Your task to perform on an android device: turn off wifi Image 0: 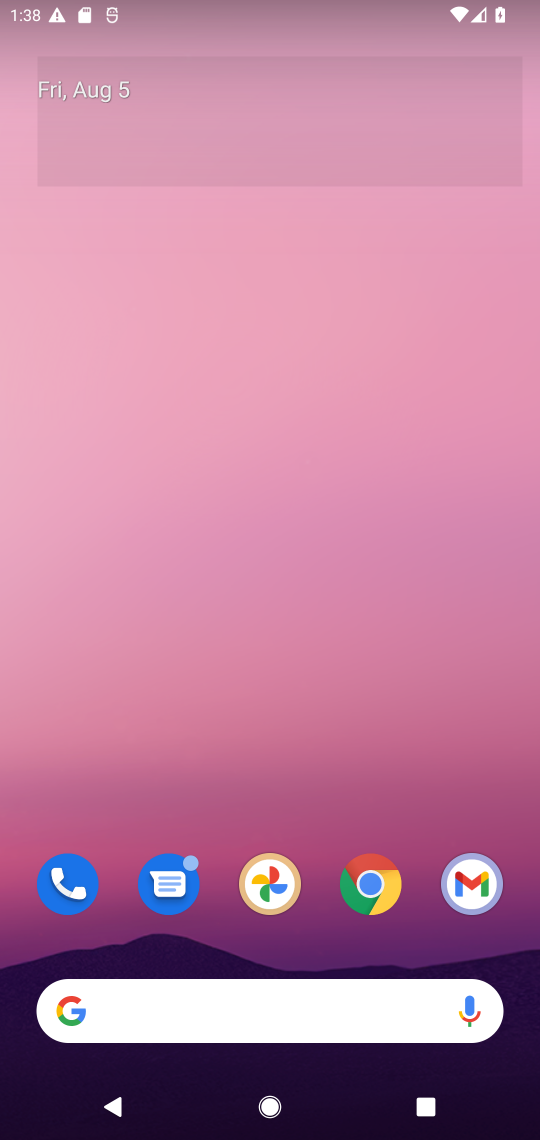
Step 0: drag from (510, 921) to (369, 199)
Your task to perform on an android device: turn off wifi Image 1: 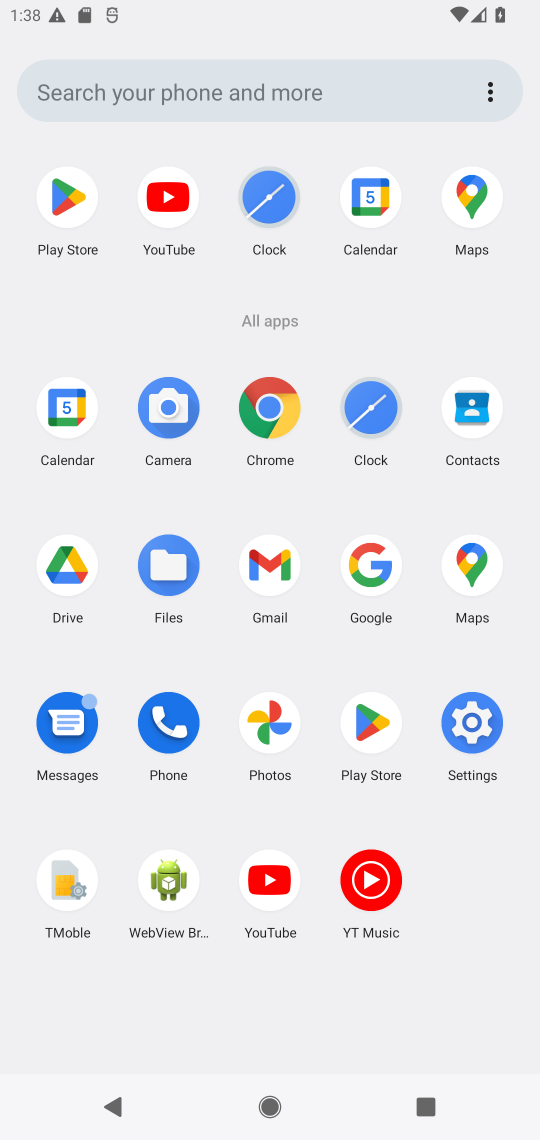
Step 1: drag from (284, 8) to (290, 803)
Your task to perform on an android device: turn off wifi Image 2: 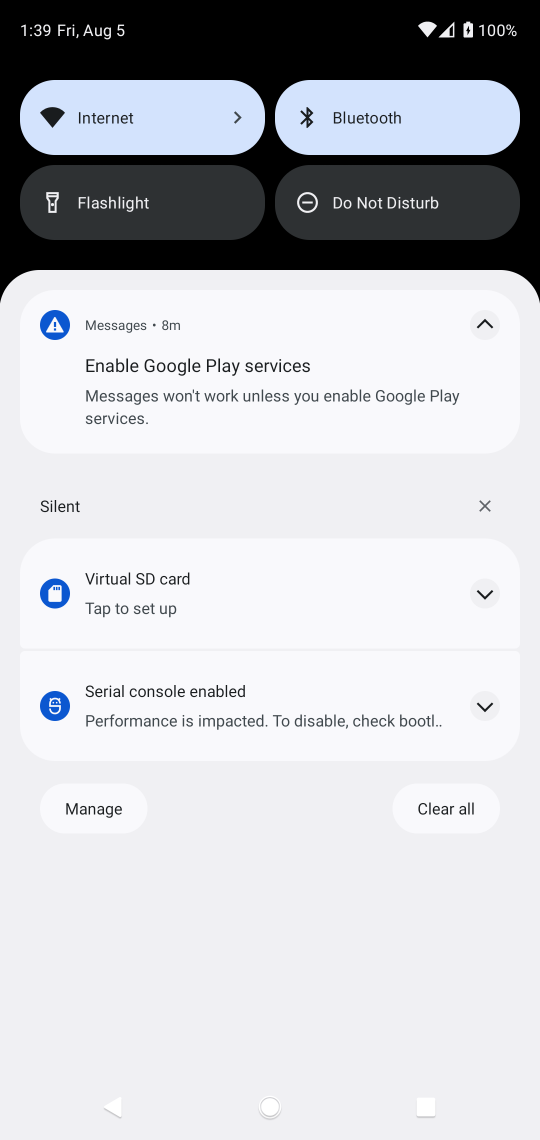
Step 2: click (123, 105)
Your task to perform on an android device: turn off wifi Image 3: 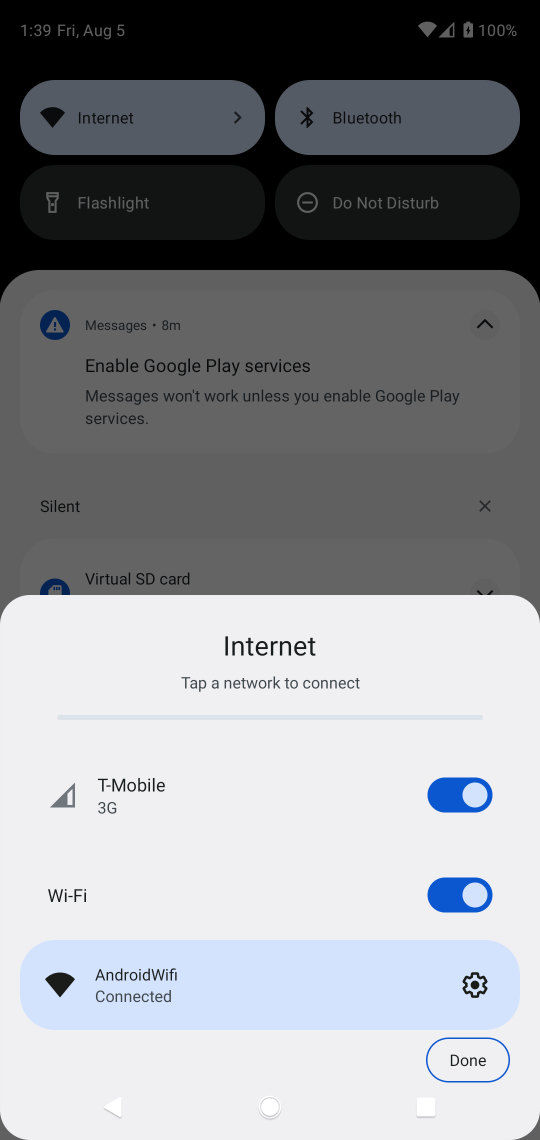
Step 3: click (471, 894)
Your task to perform on an android device: turn off wifi Image 4: 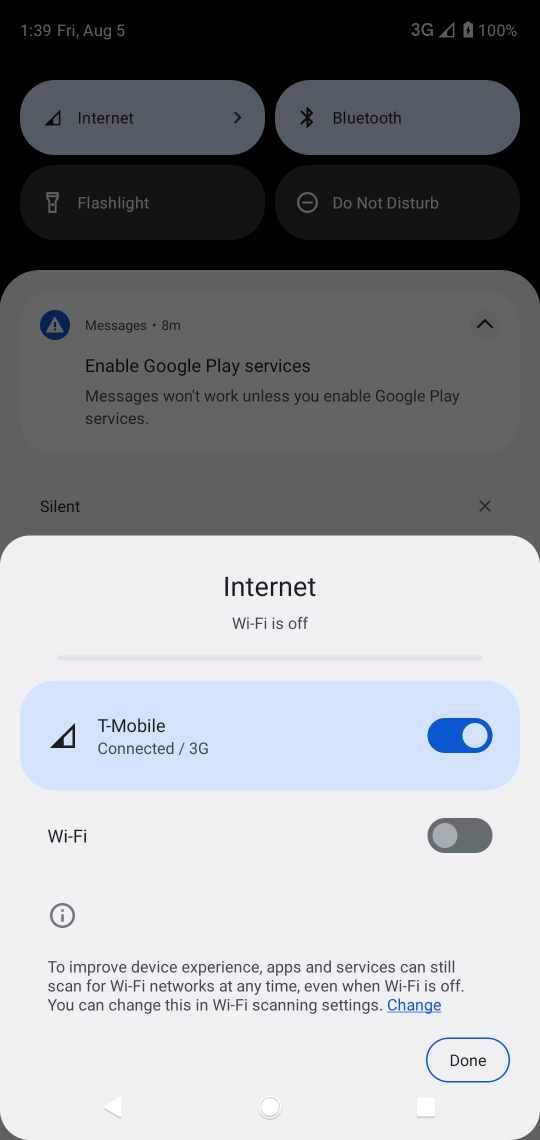
Step 4: task complete